Your task to perform on an android device: Open calendar and show me the first week of next month Image 0: 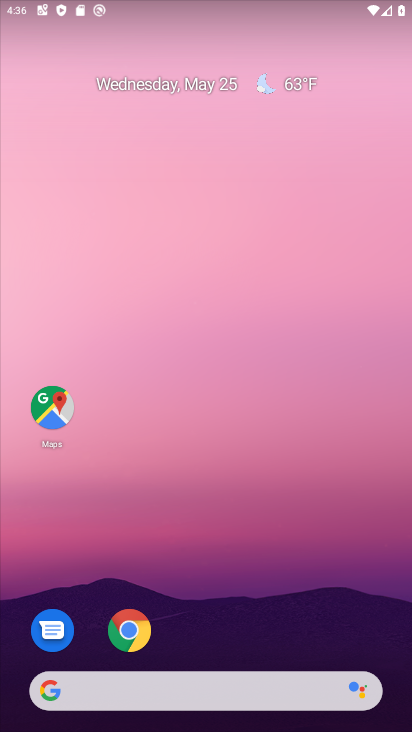
Step 0: drag from (247, 510) to (266, 37)
Your task to perform on an android device: Open calendar and show me the first week of next month Image 1: 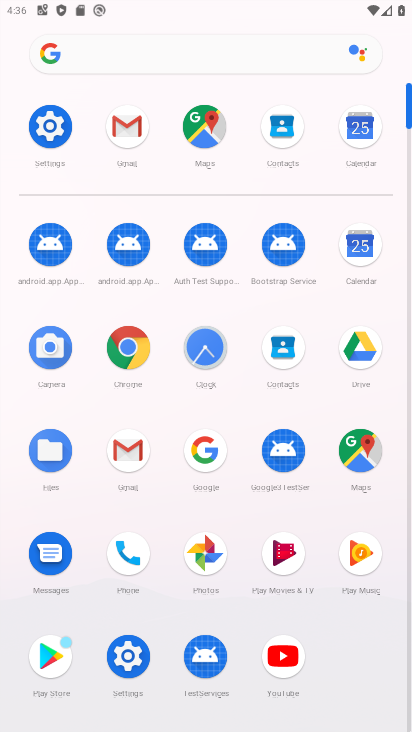
Step 1: click (360, 249)
Your task to perform on an android device: Open calendar and show me the first week of next month Image 2: 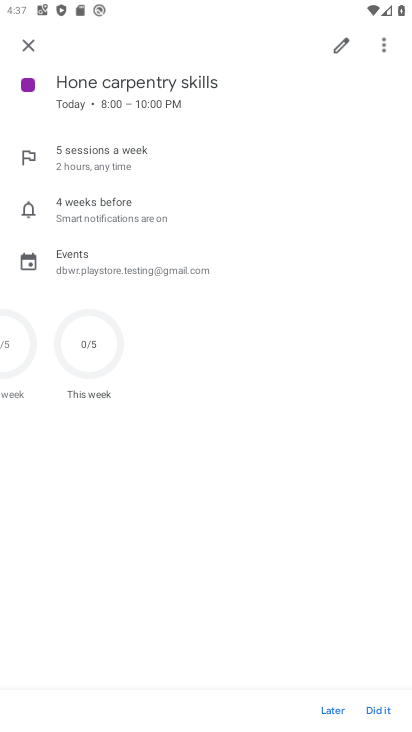
Step 2: press home button
Your task to perform on an android device: Open calendar and show me the first week of next month Image 3: 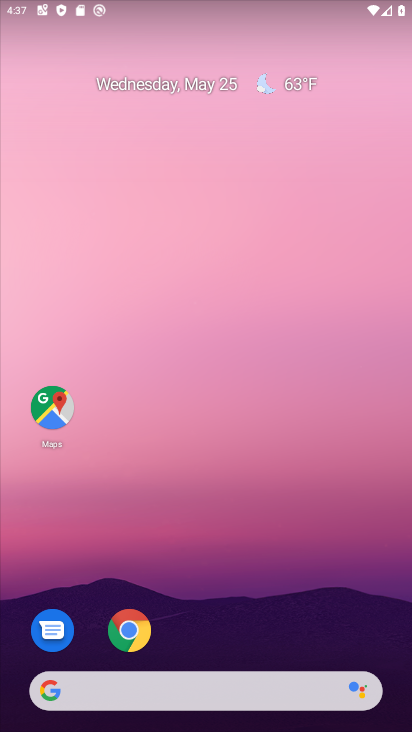
Step 3: drag from (257, 430) to (293, 10)
Your task to perform on an android device: Open calendar and show me the first week of next month Image 4: 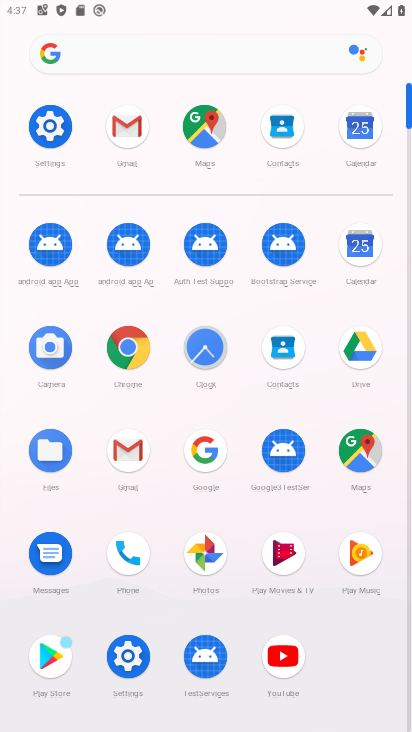
Step 4: click (352, 251)
Your task to perform on an android device: Open calendar and show me the first week of next month Image 5: 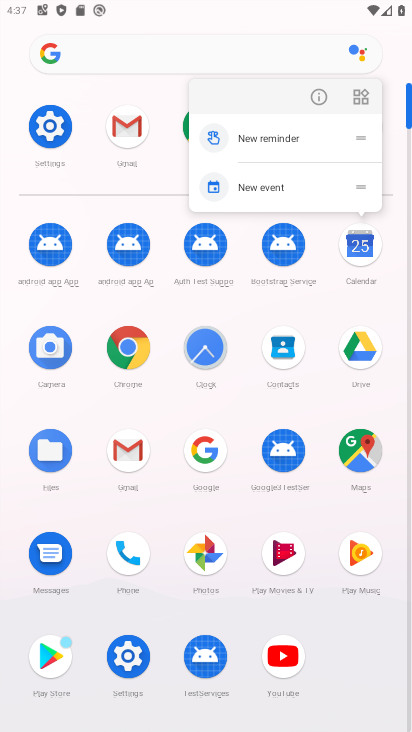
Step 5: click (360, 249)
Your task to perform on an android device: Open calendar and show me the first week of next month Image 6: 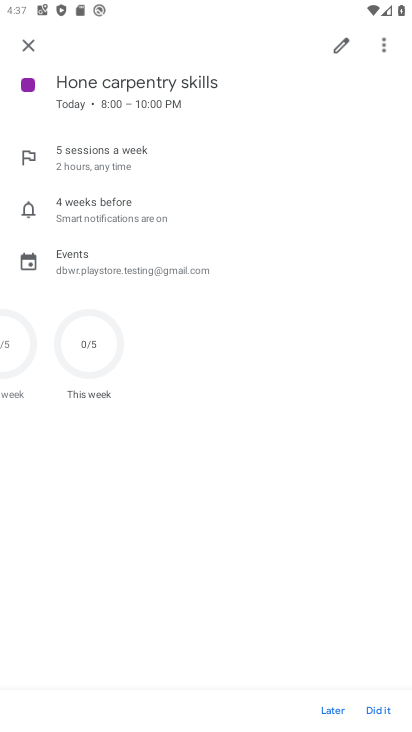
Step 6: click (28, 49)
Your task to perform on an android device: Open calendar and show me the first week of next month Image 7: 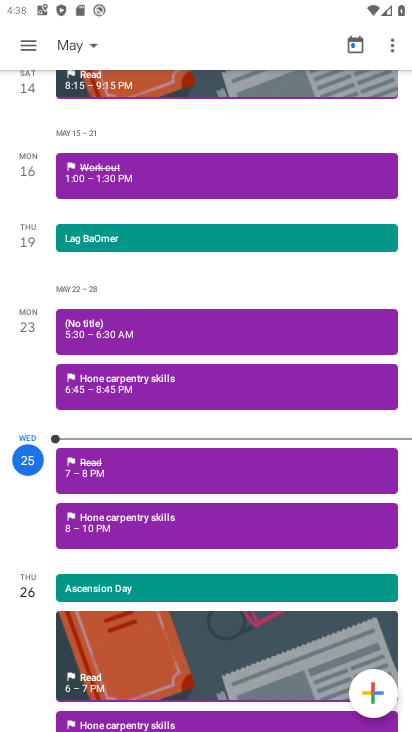
Step 7: click (78, 47)
Your task to perform on an android device: Open calendar and show me the first week of next month Image 8: 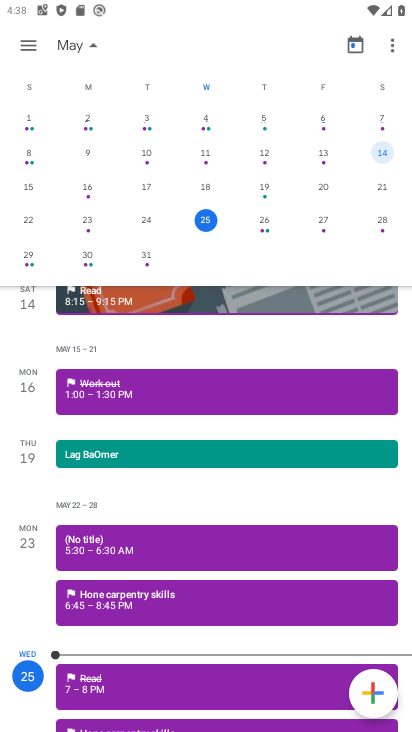
Step 8: drag from (366, 195) to (51, 172)
Your task to perform on an android device: Open calendar and show me the first week of next month Image 9: 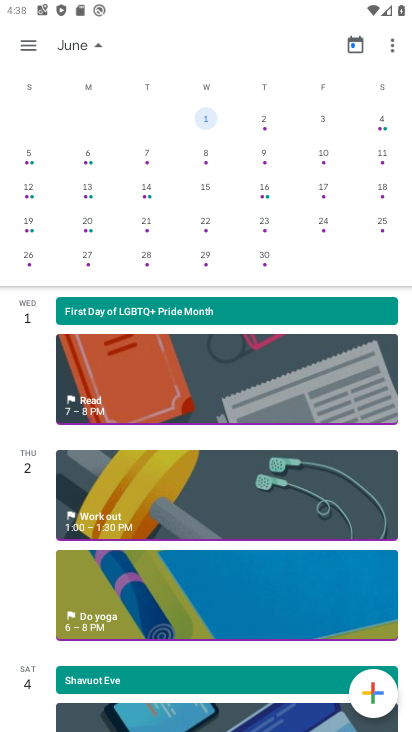
Step 9: click (200, 118)
Your task to perform on an android device: Open calendar and show me the first week of next month Image 10: 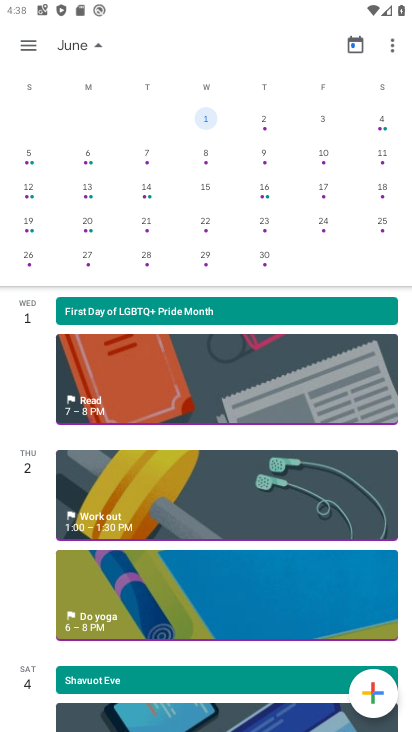
Step 10: task complete